Your task to perform on an android device: What's the weather going to be tomorrow? Image 0: 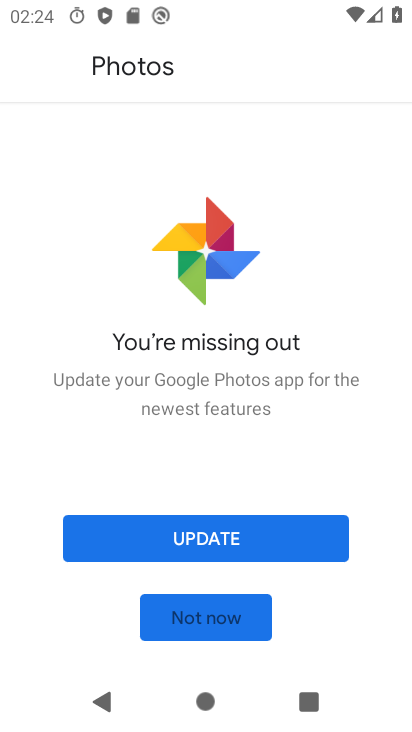
Step 0: press home button
Your task to perform on an android device: What's the weather going to be tomorrow? Image 1: 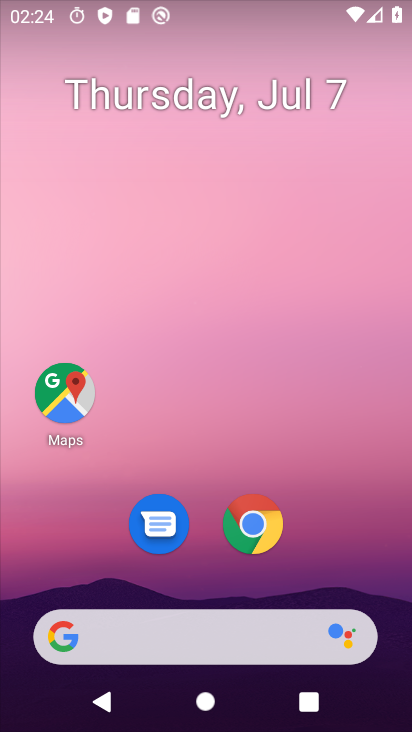
Step 1: click (225, 655)
Your task to perform on an android device: What's the weather going to be tomorrow? Image 2: 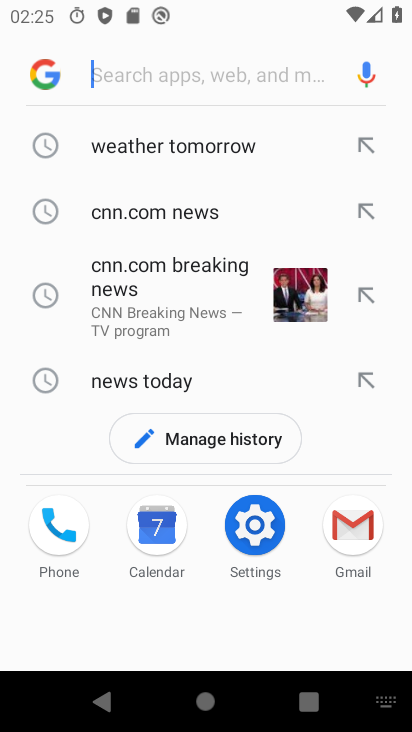
Step 2: click (205, 148)
Your task to perform on an android device: What's the weather going to be tomorrow? Image 3: 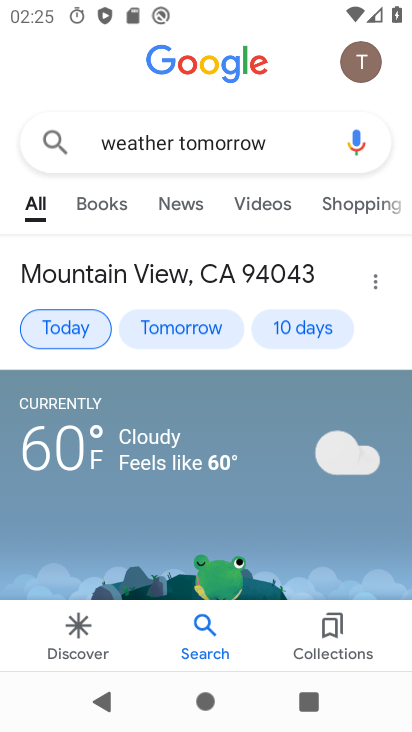
Step 3: click (62, 323)
Your task to perform on an android device: What's the weather going to be tomorrow? Image 4: 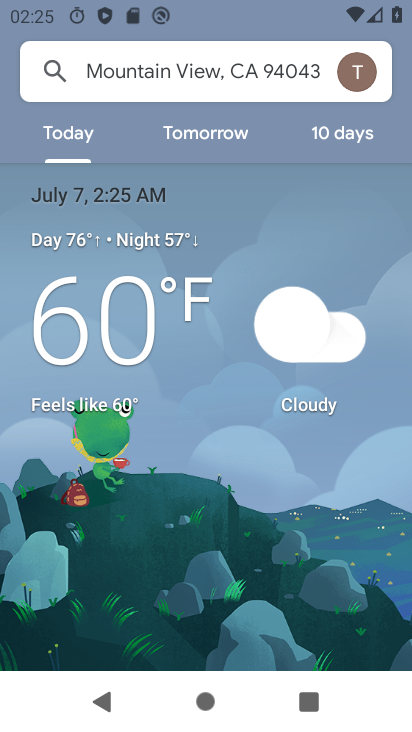
Step 4: click (213, 124)
Your task to perform on an android device: What's the weather going to be tomorrow? Image 5: 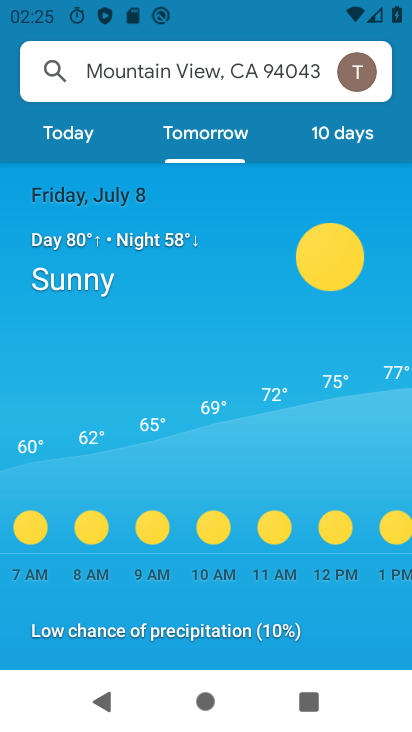
Step 5: task complete